Your task to perform on an android device: Open calendar and show me the fourth week of next month Image 0: 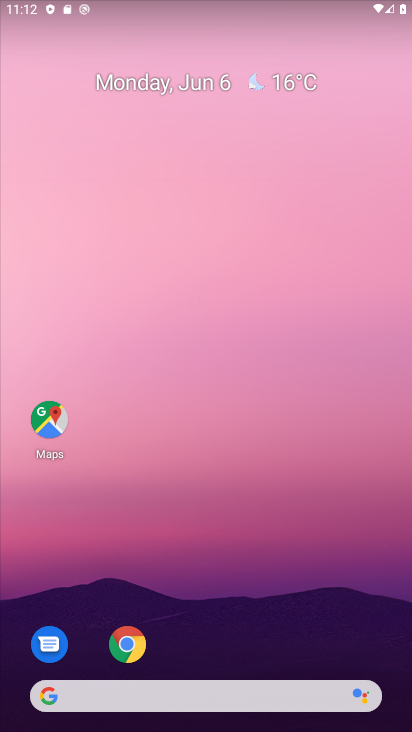
Step 0: drag from (244, 619) to (264, 111)
Your task to perform on an android device: Open calendar and show me the fourth week of next month Image 1: 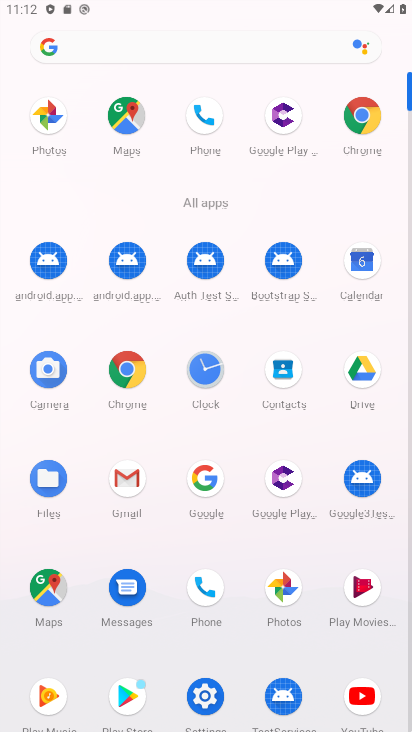
Step 1: click (364, 292)
Your task to perform on an android device: Open calendar and show me the fourth week of next month Image 2: 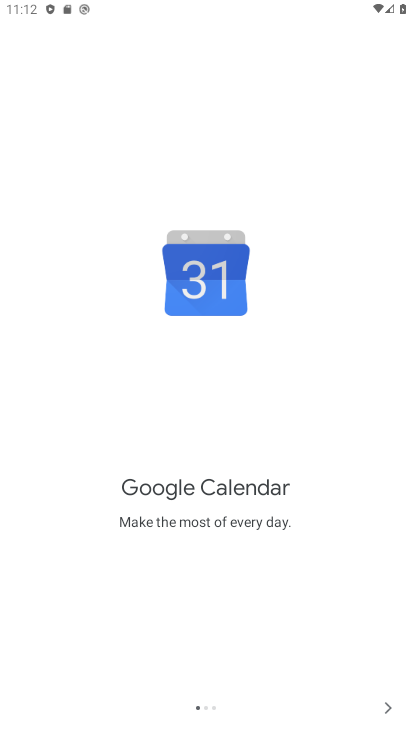
Step 2: click (397, 710)
Your task to perform on an android device: Open calendar and show me the fourth week of next month Image 3: 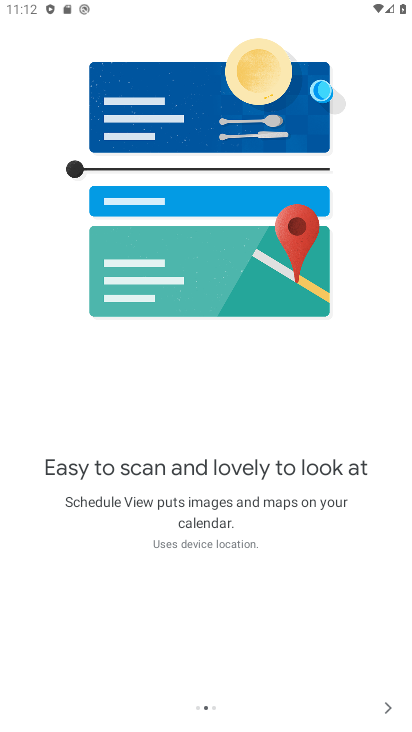
Step 3: click (384, 712)
Your task to perform on an android device: Open calendar and show me the fourth week of next month Image 4: 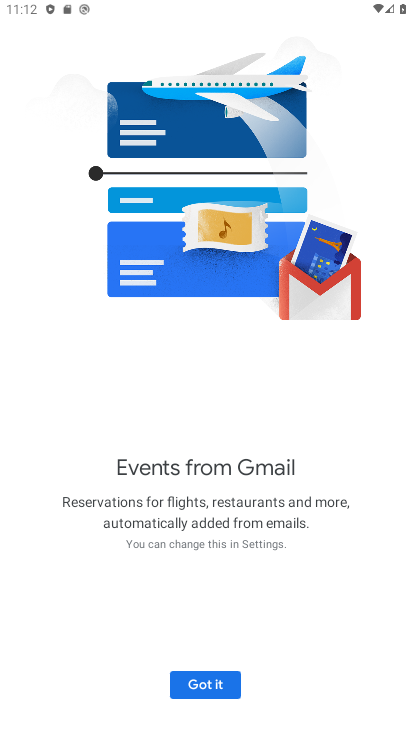
Step 4: click (234, 687)
Your task to perform on an android device: Open calendar and show me the fourth week of next month Image 5: 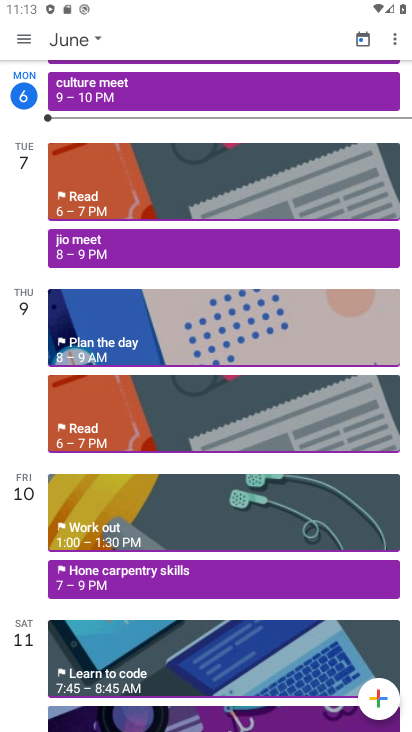
Step 5: click (97, 46)
Your task to perform on an android device: Open calendar and show me the fourth week of next month Image 6: 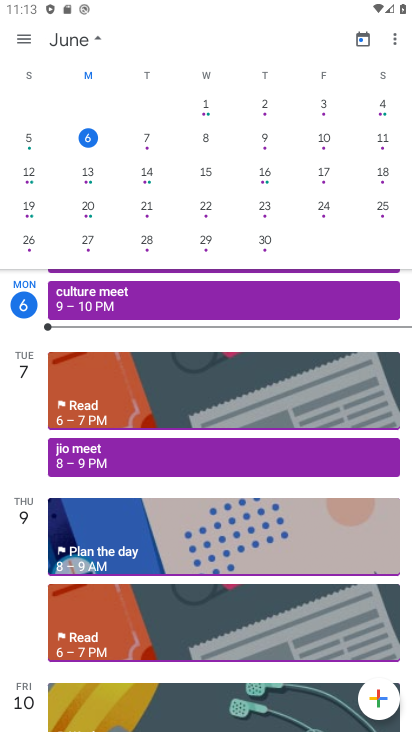
Step 6: drag from (300, 165) to (1, 159)
Your task to perform on an android device: Open calendar and show me the fourth week of next month Image 7: 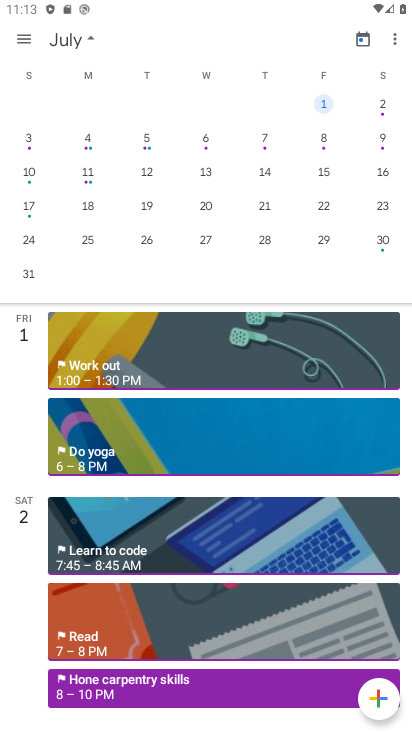
Step 7: click (28, 214)
Your task to perform on an android device: Open calendar and show me the fourth week of next month Image 8: 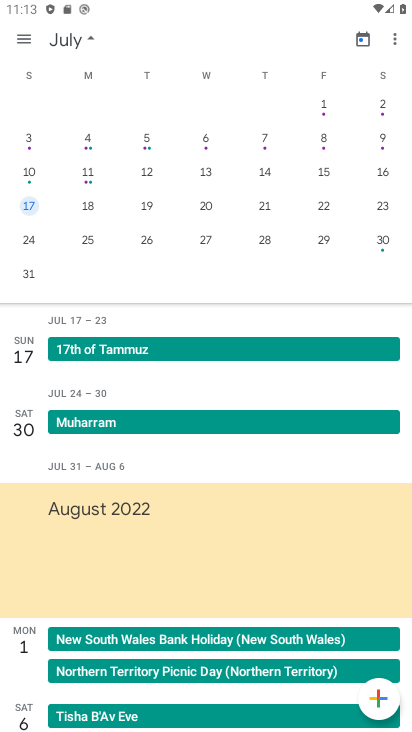
Step 8: click (91, 39)
Your task to perform on an android device: Open calendar and show me the fourth week of next month Image 9: 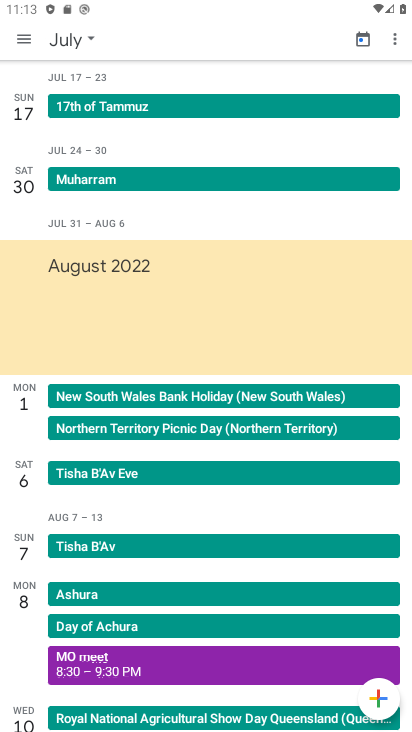
Step 9: task complete